Your task to perform on an android device: View the shopping cart on newegg.com. Search for "bose soundsport free" on newegg.com, select the first entry, add it to the cart, then select checkout. Image 0: 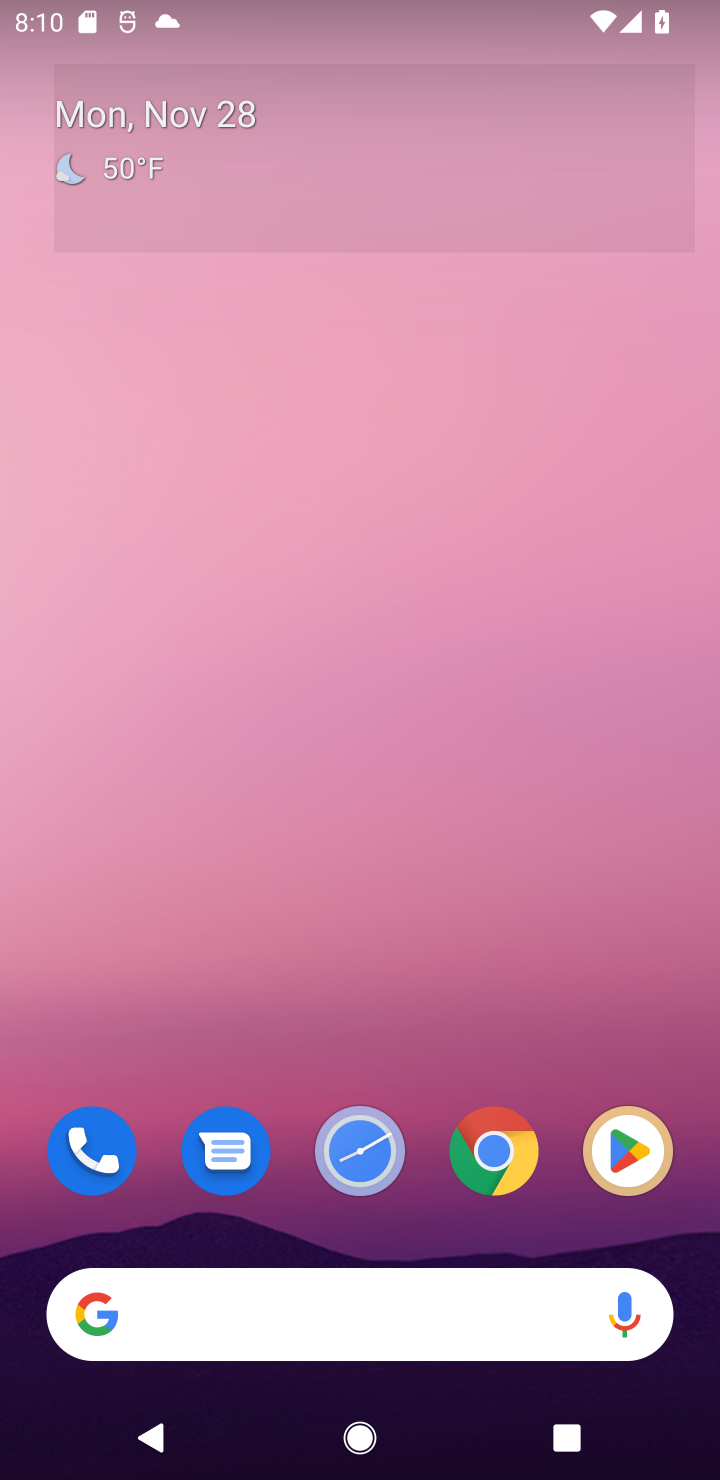
Step 0: click (371, 1373)
Your task to perform on an android device: View the shopping cart on newegg.com. Search for "bose soundsport free" on newegg.com, select the first entry, add it to the cart, then select checkout. Image 1: 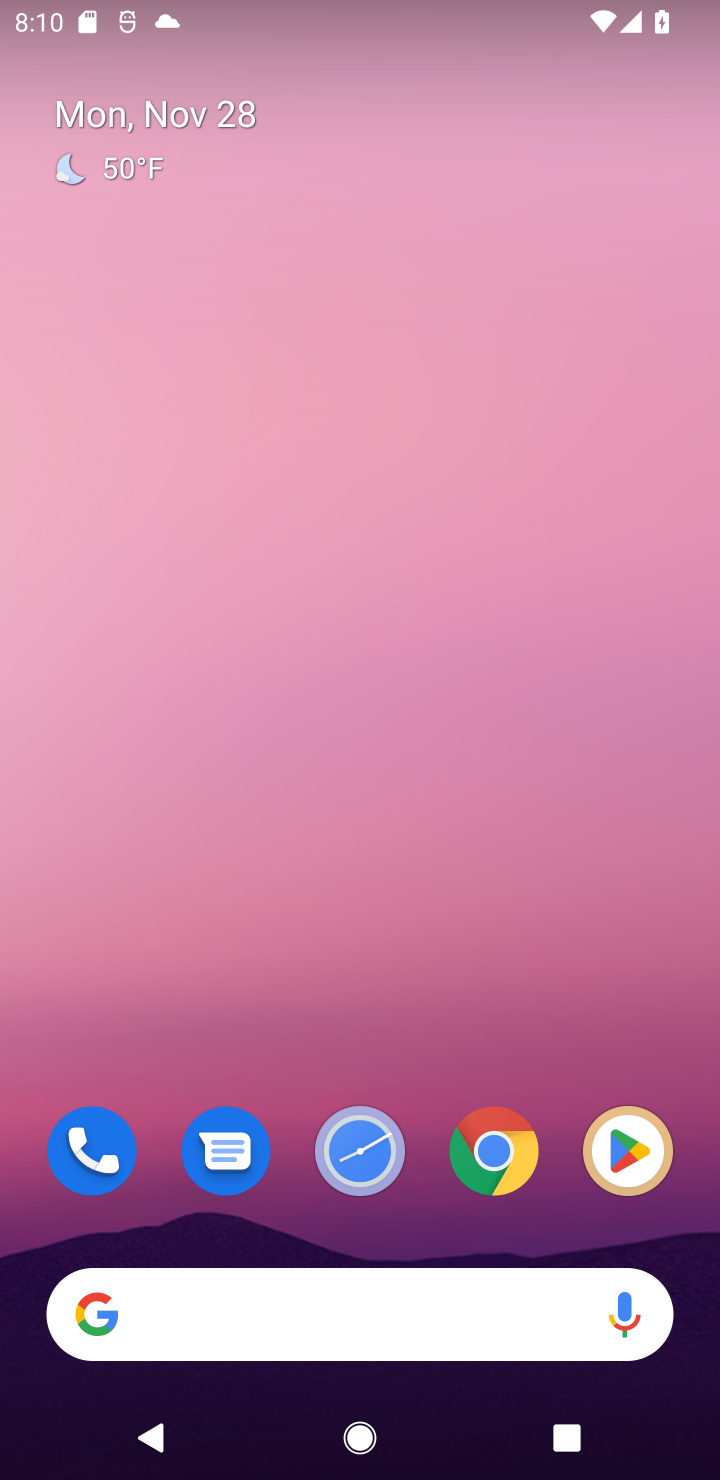
Step 1: click (366, 1330)
Your task to perform on an android device: View the shopping cart on newegg.com. Search for "bose soundsport free" on newegg.com, select the first entry, add it to the cart, then select checkout. Image 2: 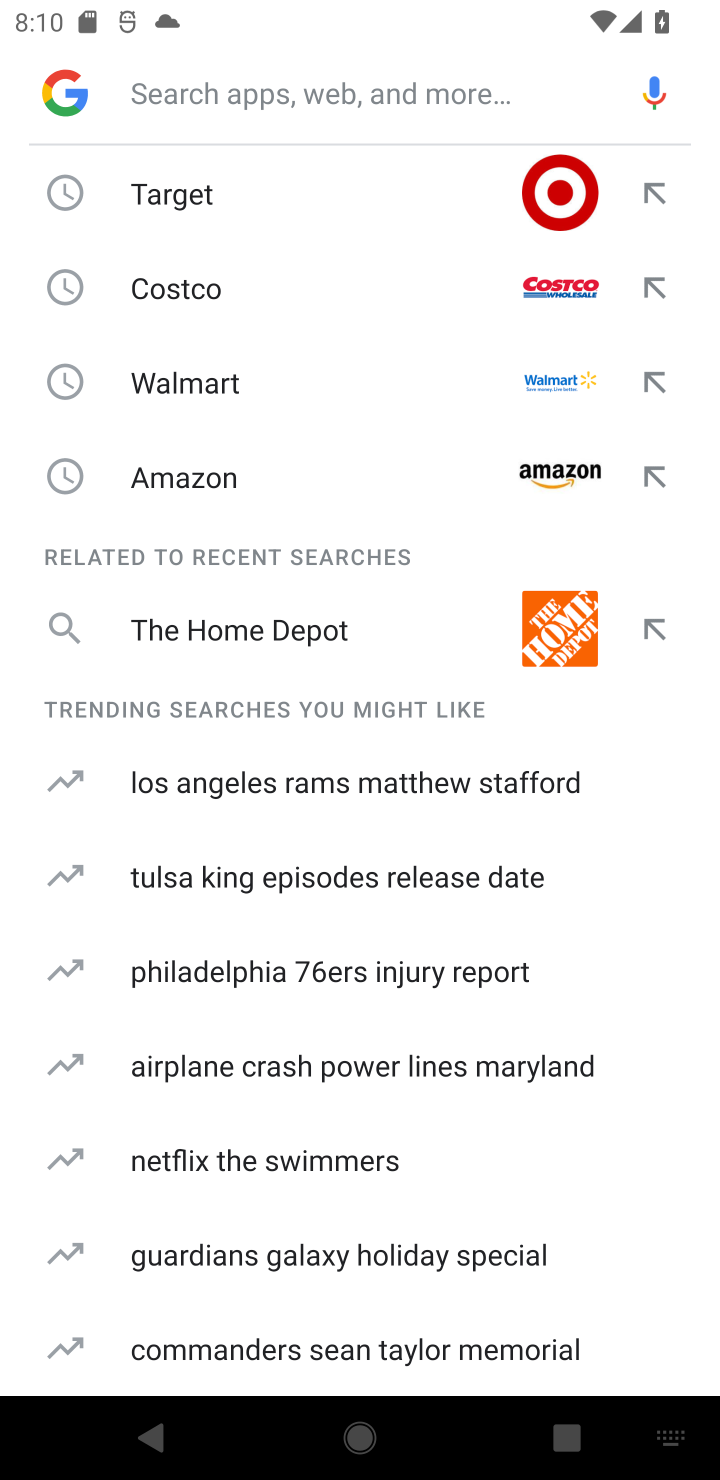
Step 2: type "newegg"
Your task to perform on an android device: View the shopping cart on newegg.com. Search for "bose soundsport free" on newegg.com, select the first entry, add it to the cart, then select checkout. Image 3: 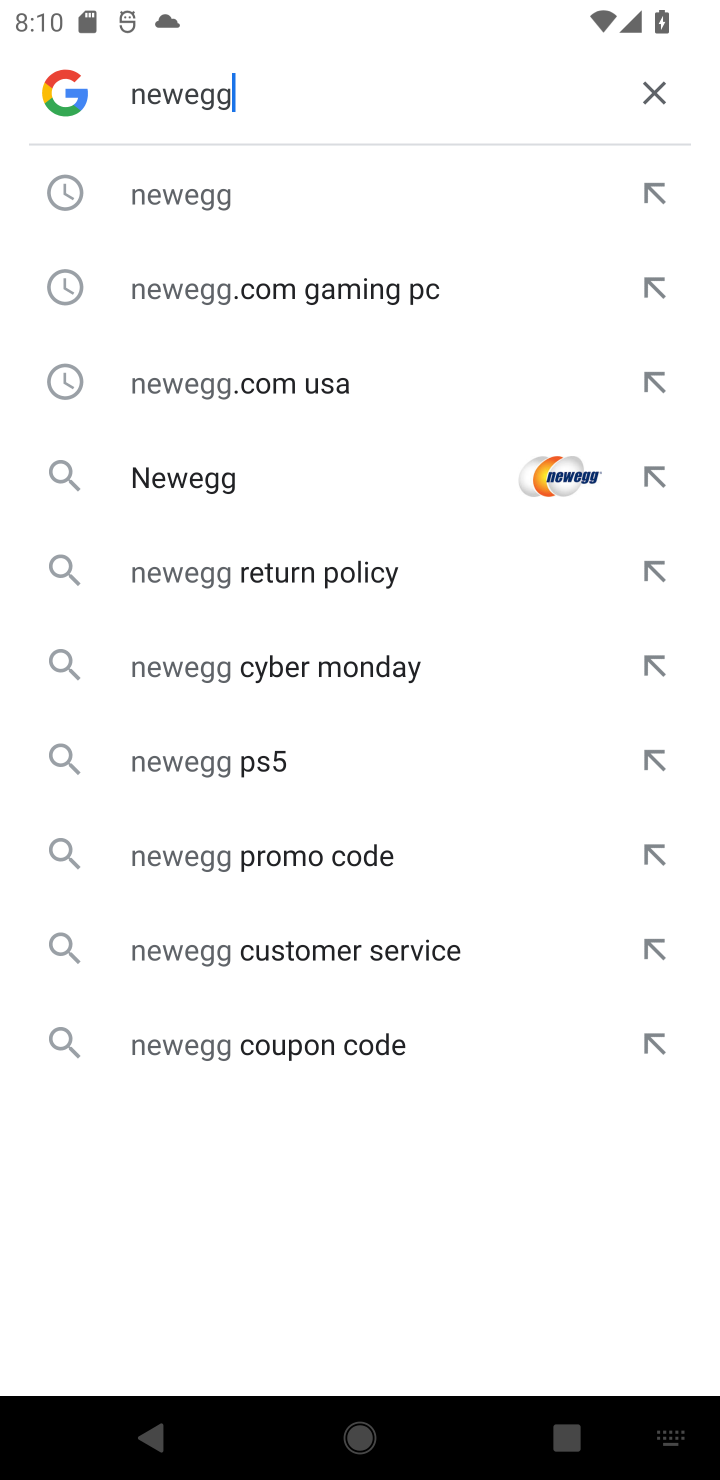
Step 3: click (209, 474)
Your task to perform on an android device: View the shopping cart on newegg.com. Search for "bose soundsport free" on newegg.com, select the first entry, add it to the cart, then select checkout. Image 4: 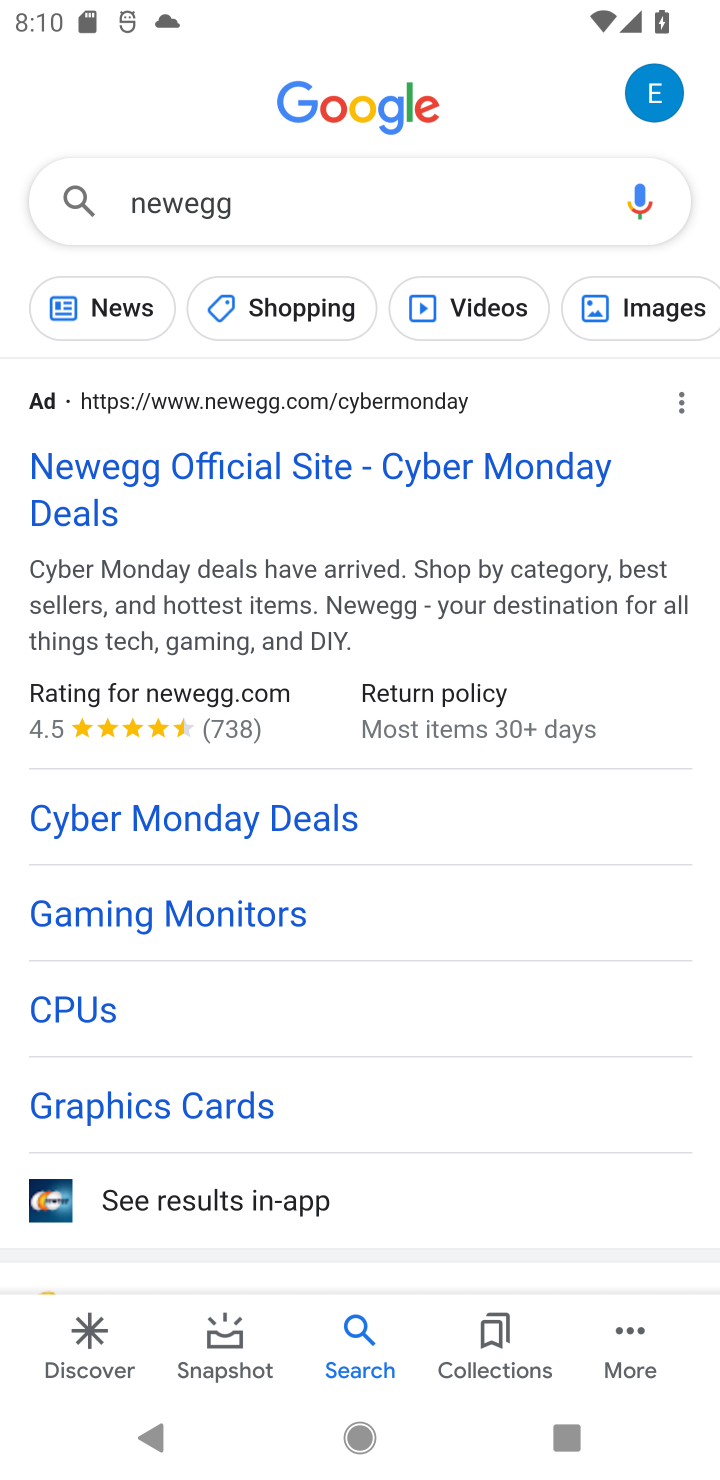
Step 4: click (72, 508)
Your task to perform on an android device: View the shopping cart on newegg.com. Search for "bose soundsport free" on newegg.com, select the first entry, add it to the cart, then select checkout. Image 5: 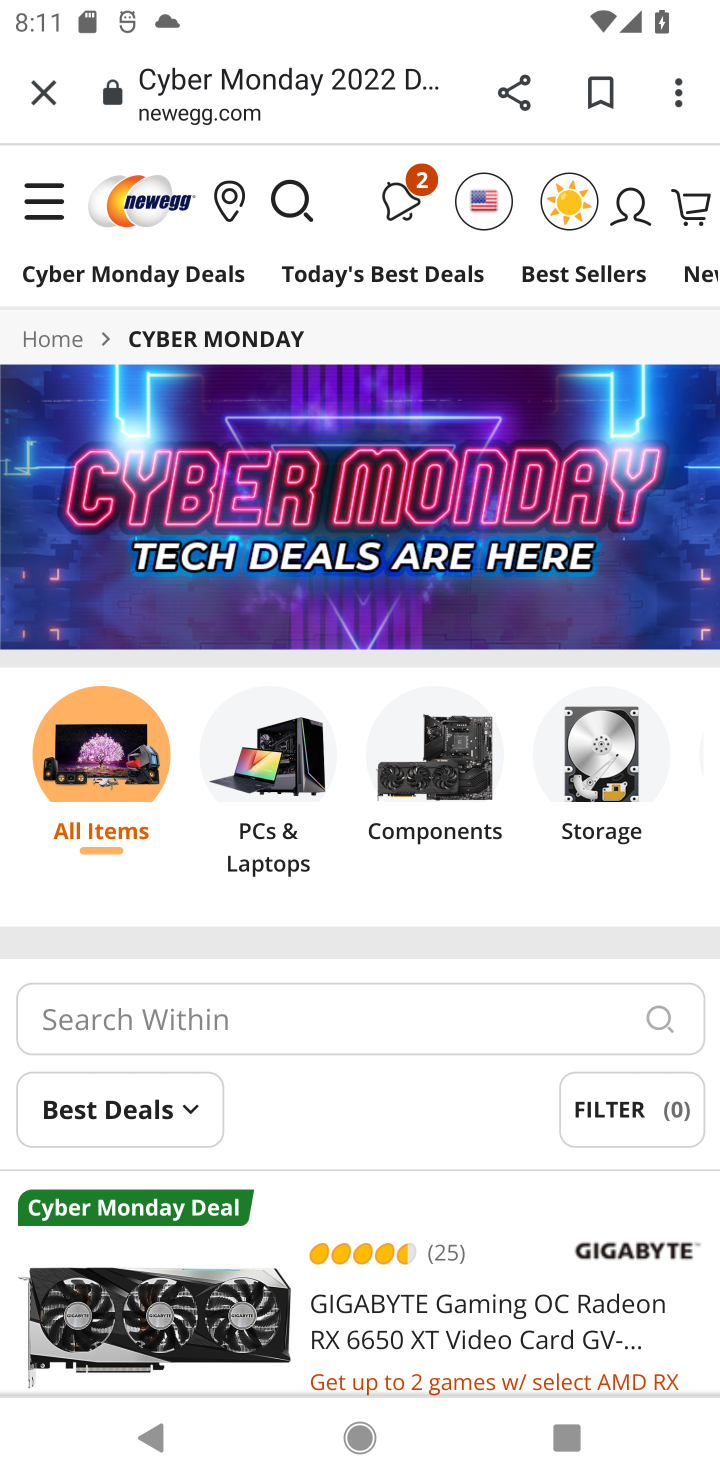
Step 5: task complete